Your task to perform on an android device: turn off notifications settings in the gmail app Image 0: 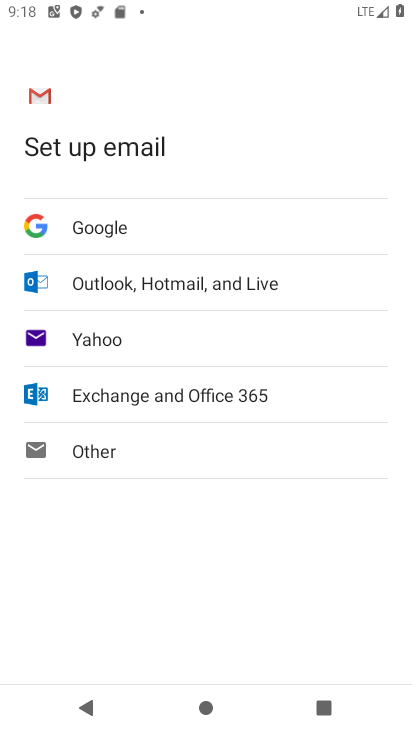
Step 0: press back button
Your task to perform on an android device: turn off notifications settings in the gmail app Image 1: 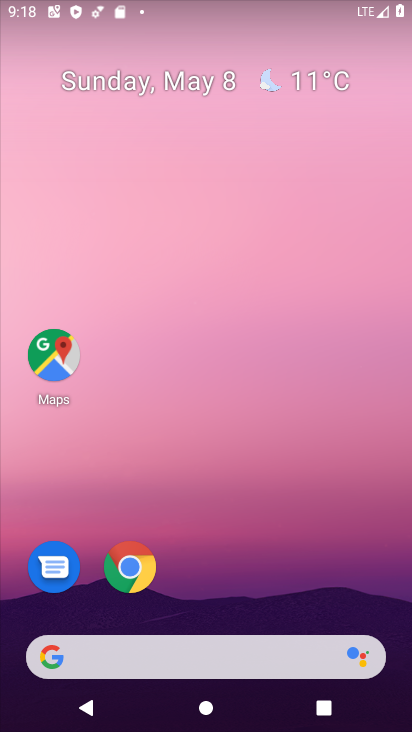
Step 1: drag from (221, 605) to (282, 12)
Your task to perform on an android device: turn off notifications settings in the gmail app Image 2: 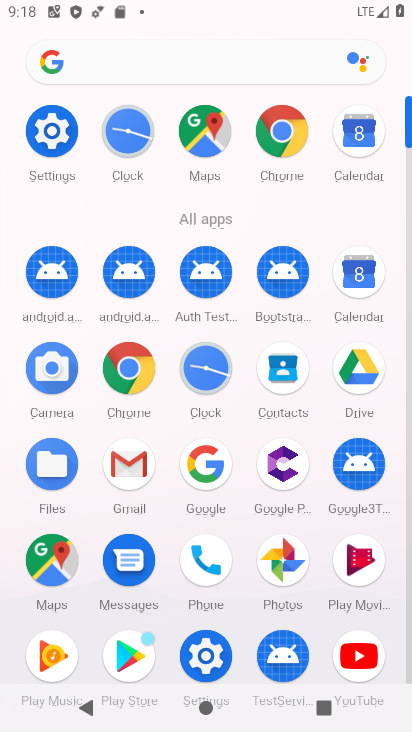
Step 2: click (129, 465)
Your task to perform on an android device: turn off notifications settings in the gmail app Image 3: 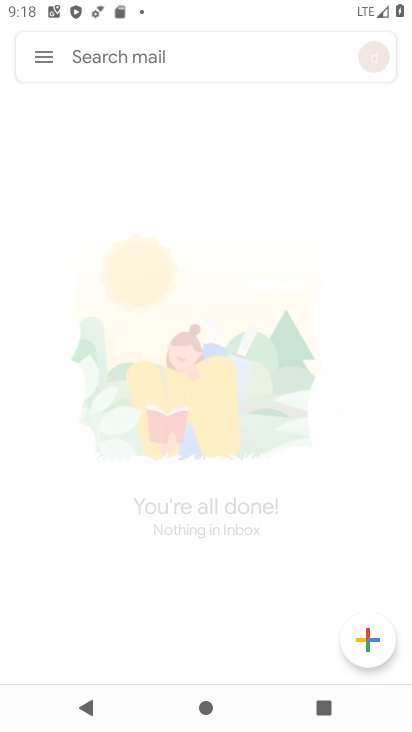
Step 3: click (48, 55)
Your task to perform on an android device: turn off notifications settings in the gmail app Image 4: 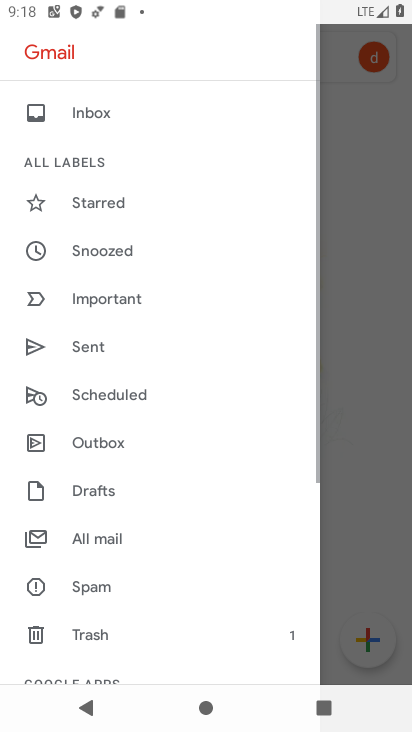
Step 4: drag from (148, 630) to (204, 53)
Your task to perform on an android device: turn off notifications settings in the gmail app Image 5: 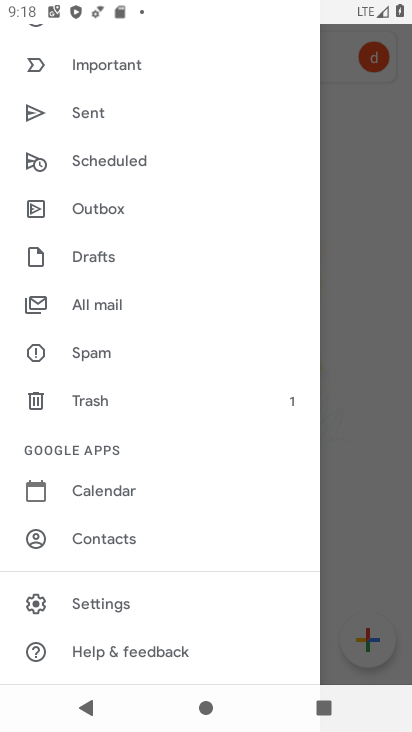
Step 5: click (110, 599)
Your task to perform on an android device: turn off notifications settings in the gmail app Image 6: 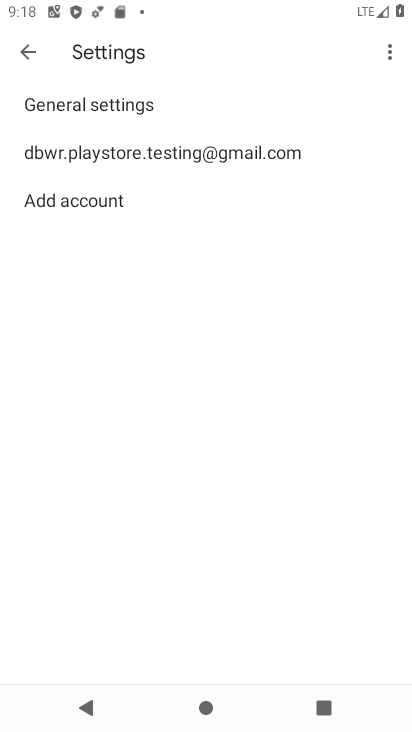
Step 6: click (75, 146)
Your task to perform on an android device: turn off notifications settings in the gmail app Image 7: 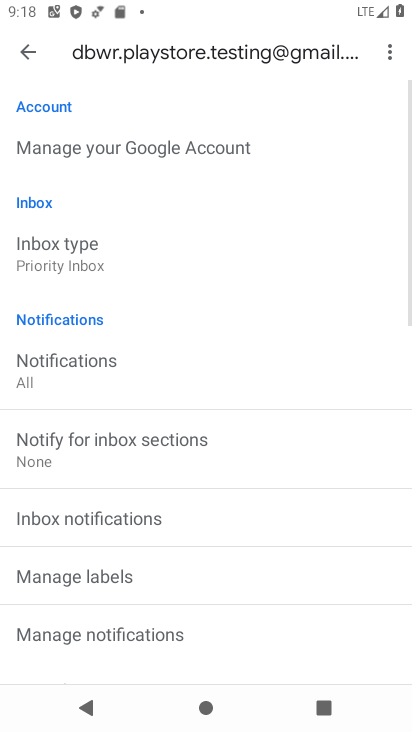
Step 7: drag from (147, 578) to (253, 187)
Your task to perform on an android device: turn off notifications settings in the gmail app Image 8: 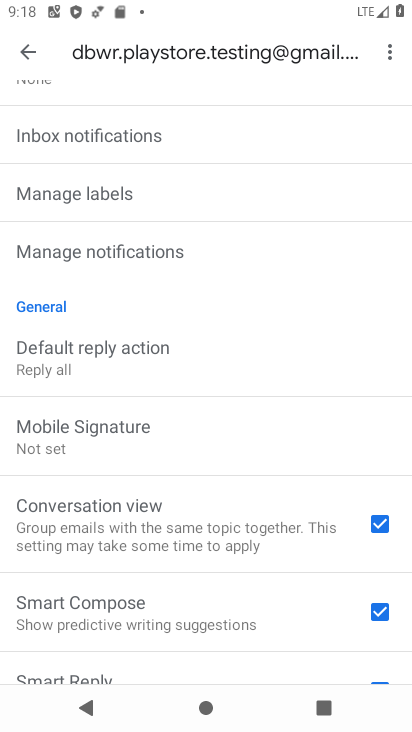
Step 8: drag from (188, 52) to (130, 605)
Your task to perform on an android device: turn off notifications settings in the gmail app Image 9: 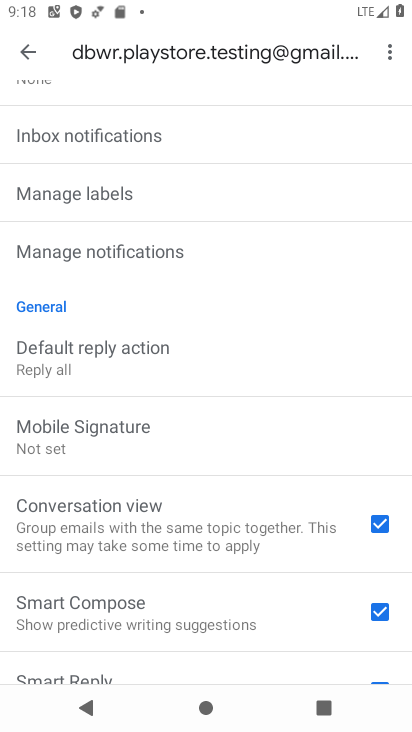
Step 9: drag from (159, 273) to (123, 731)
Your task to perform on an android device: turn off notifications settings in the gmail app Image 10: 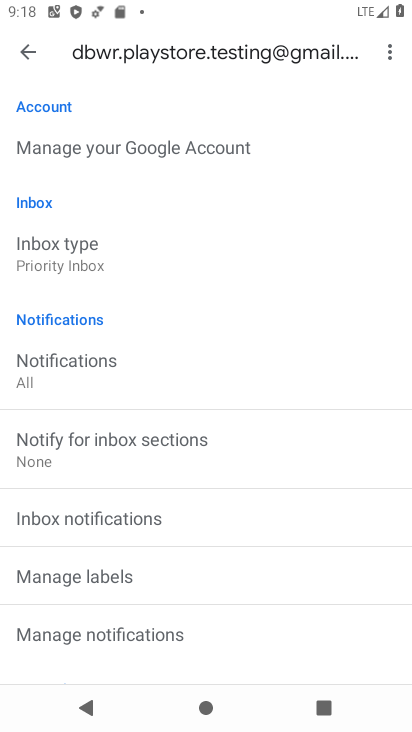
Step 10: click (96, 368)
Your task to perform on an android device: turn off notifications settings in the gmail app Image 11: 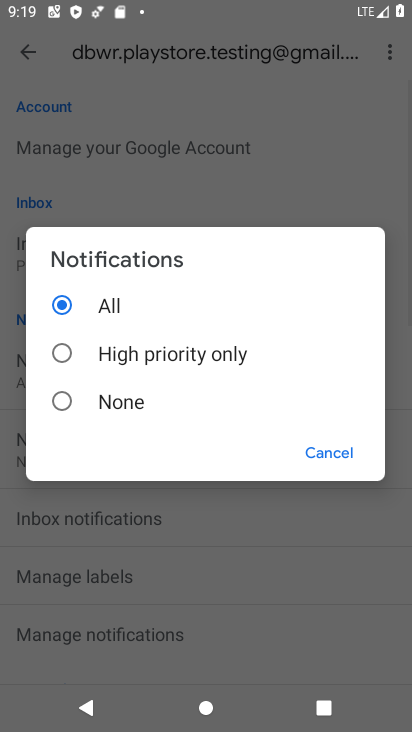
Step 11: click (322, 157)
Your task to perform on an android device: turn off notifications settings in the gmail app Image 12: 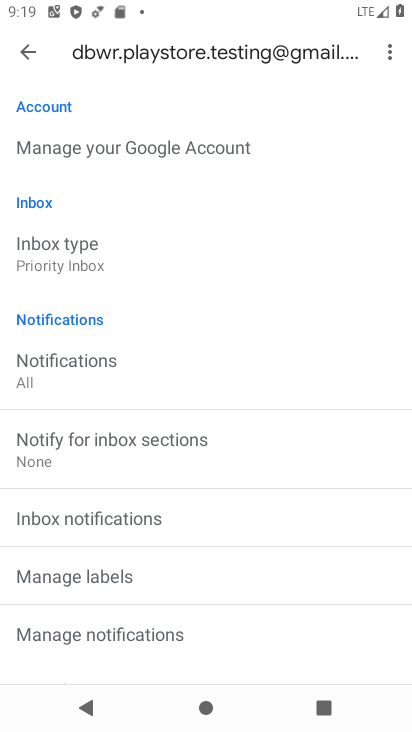
Step 12: click (105, 383)
Your task to perform on an android device: turn off notifications settings in the gmail app Image 13: 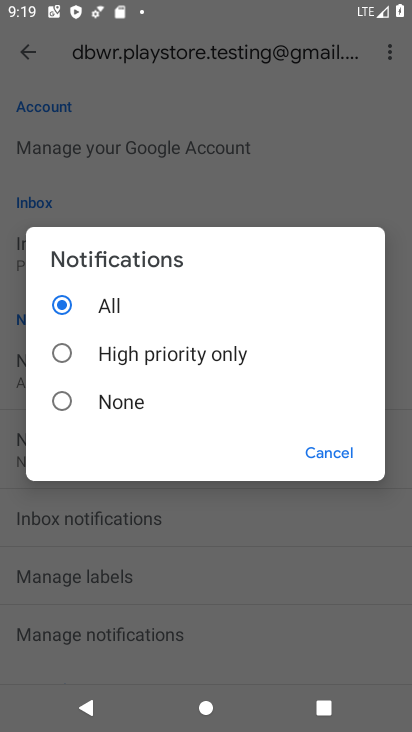
Step 13: click (307, 449)
Your task to perform on an android device: turn off notifications settings in the gmail app Image 14: 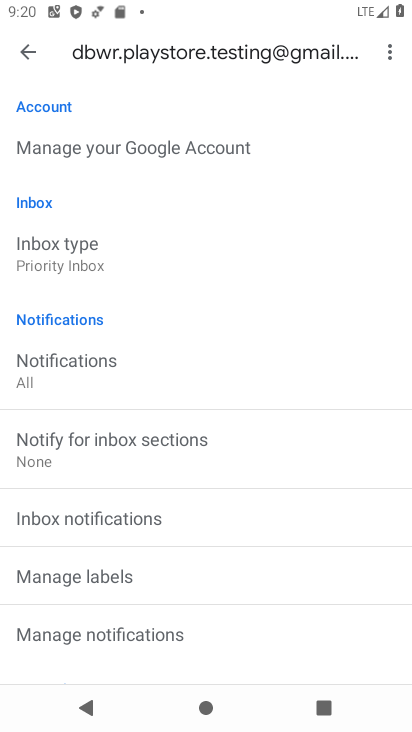
Step 14: click (140, 362)
Your task to perform on an android device: turn off notifications settings in the gmail app Image 15: 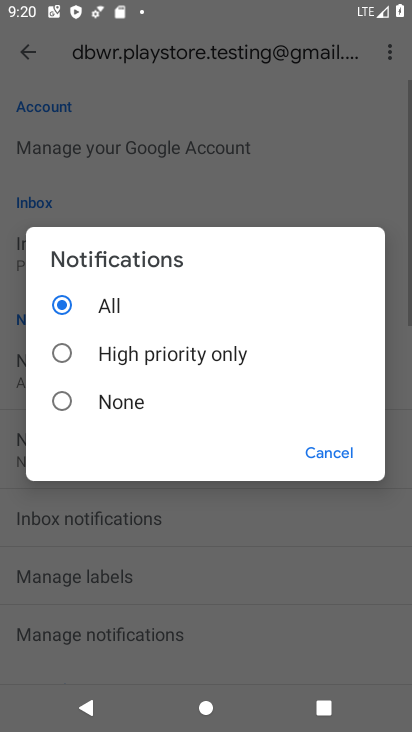
Step 15: click (341, 454)
Your task to perform on an android device: turn off notifications settings in the gmail app Image 16: 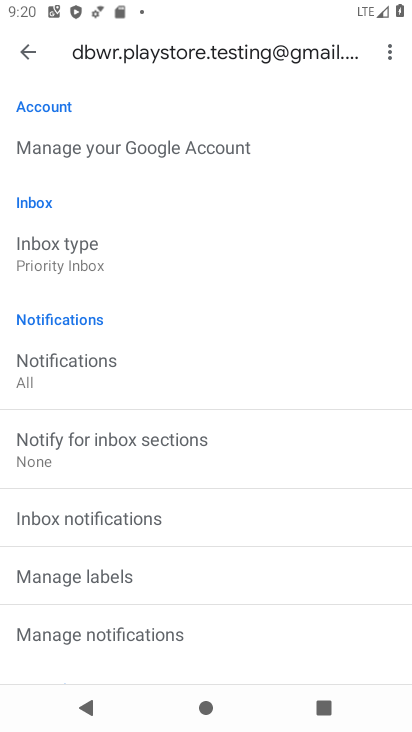
Step 16: click (132, 639)
Your task to perform on an android device: turn off notifications settings in the gmail app Image 17: 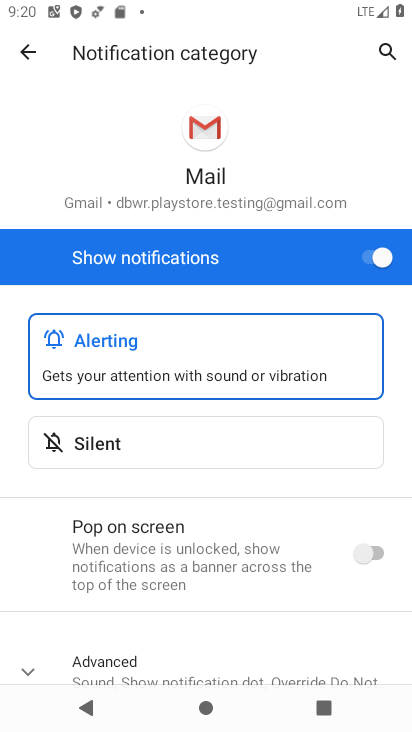
Step 17: click (377, 254)
Your task to perform on an android device: turn off notifications settings in the gmail app Image 18: 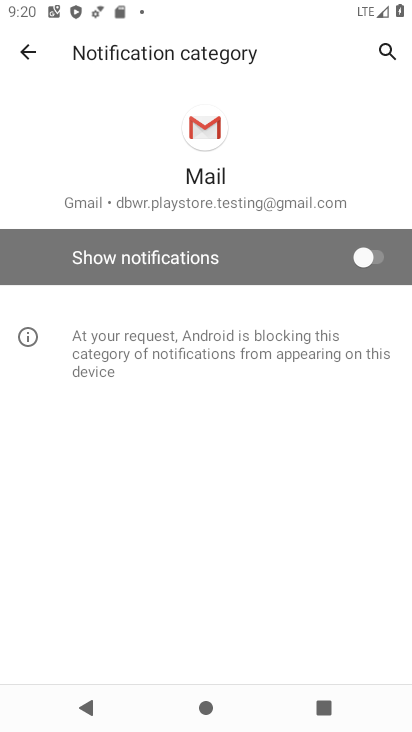
Step 18: task complete